Your task to perform on an android device: Show me recent news Image 0: 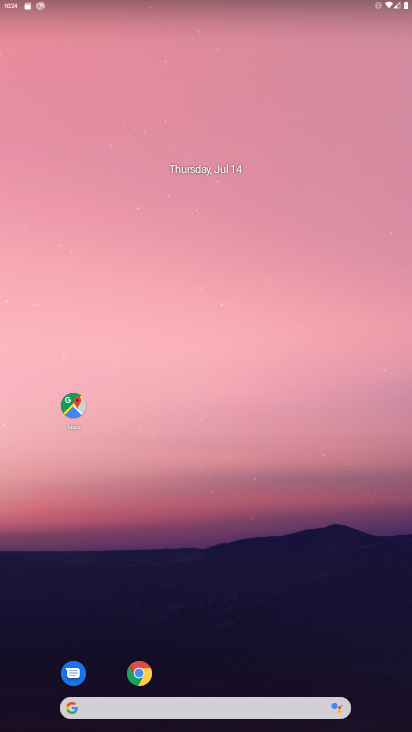
Step 0: drag from (14, 259) to (395, 311)
Your task to perform on an android device: Show me recent news Image 1: 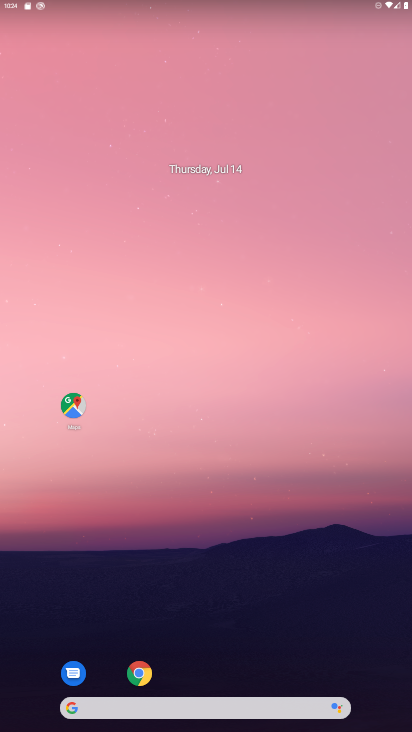
Step 1: drag from (11, 279) to (394, 330)
Your task to perform on an android device: Show me recent news Image 2: 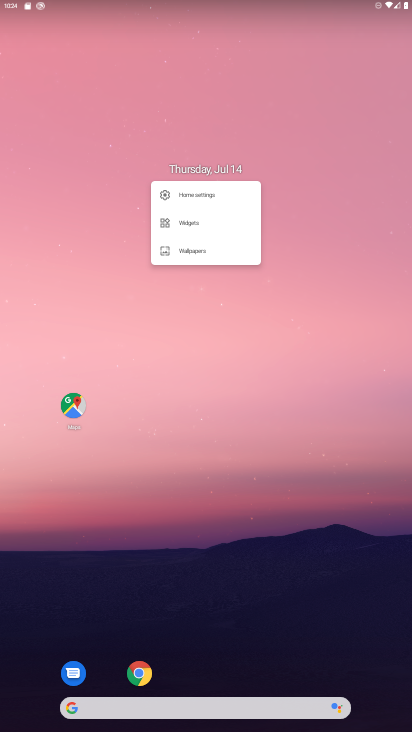
Step 2: click (309, 331)
Your task to perform on an android device: Show me recent news Image 3: 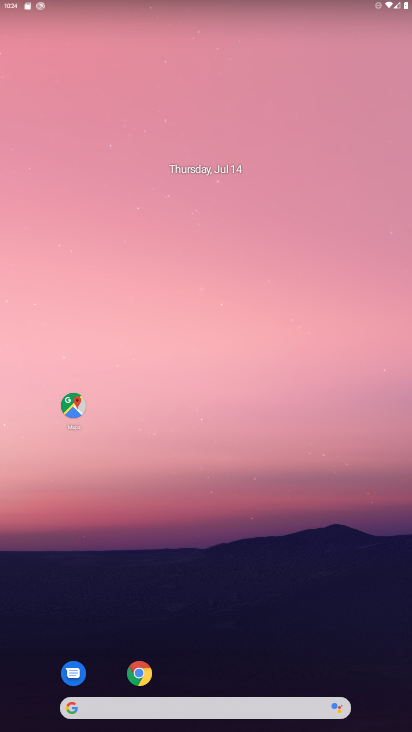
Step 3: task complete